Your task to perform on an android device: allow cookies in the chrome app Image 0: 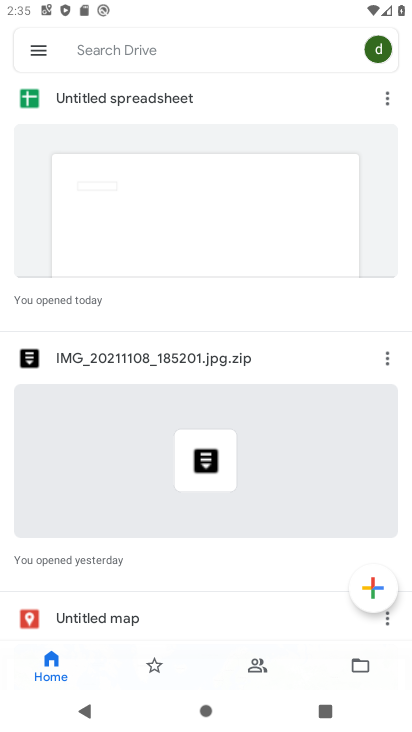
Step 0: press home button
Your task to perform on an android device: allow cookies in the chrome app Image 1: 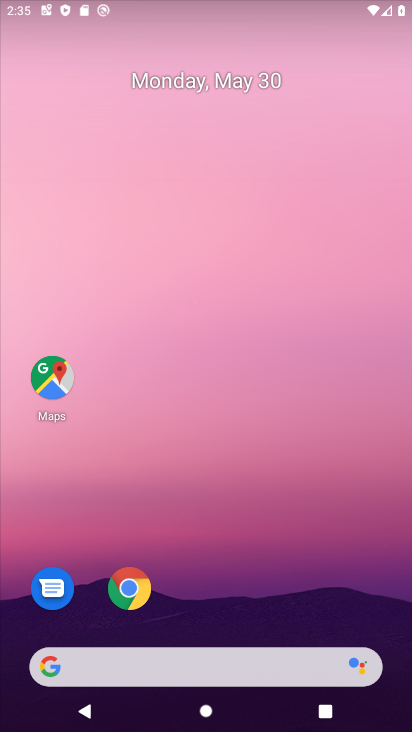
Step 1: drag from (208, 557) to (220, 275)
Your task to perform on an android device: allow cookies in the chrome app Image 2: 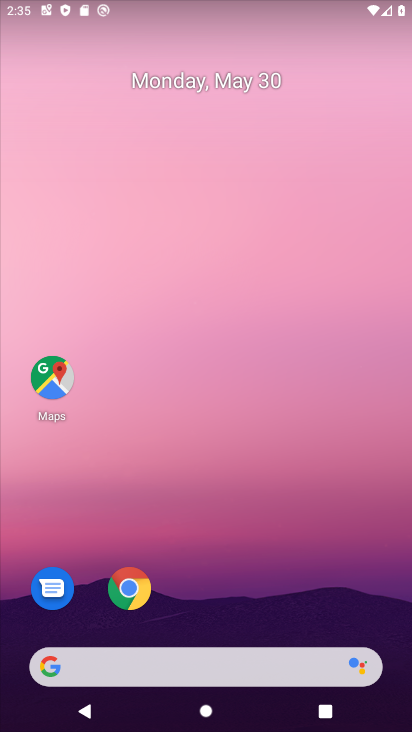
Step 2: click (128, 579)
Your task to perform on an android device: allow cookies in the chrome app Image 3: 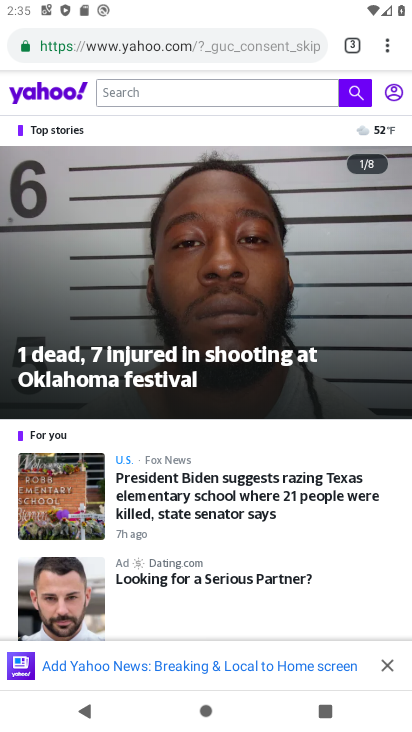
Step 3: click (387, 46)
Your task to perform on an android device: allow cookies in the chrome app Image 4: 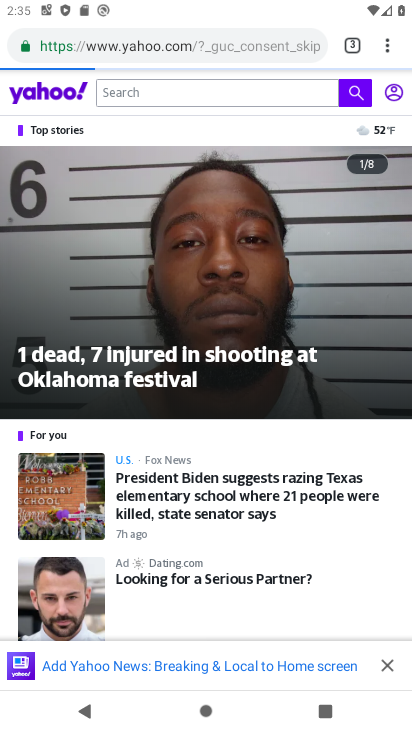
Step 4: click (387, 46)
Your task to perform on an android device: allow cookies in the chrome app Image 5: 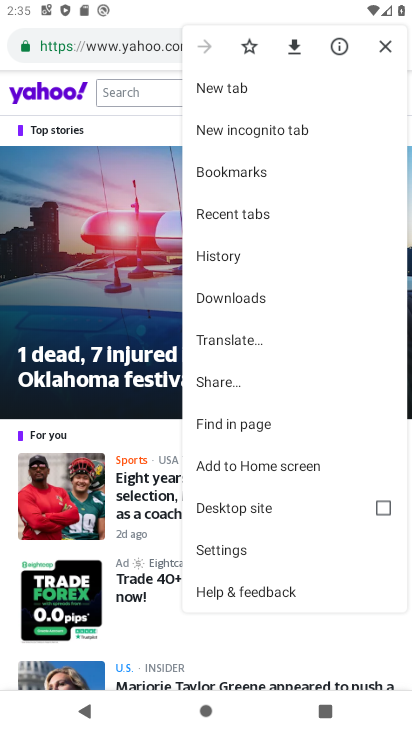
Step 5: drag from (259, 383) to (244, 143)
Your task to perform on an android device: allow cookies in the chrome app Image 6: 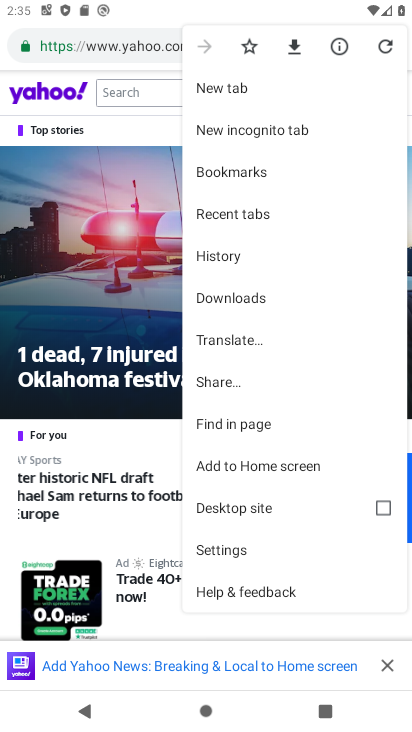
Step 6: click (238, 539)
Your task to perform on an android device: allow cookies in the chrome app Image 7: 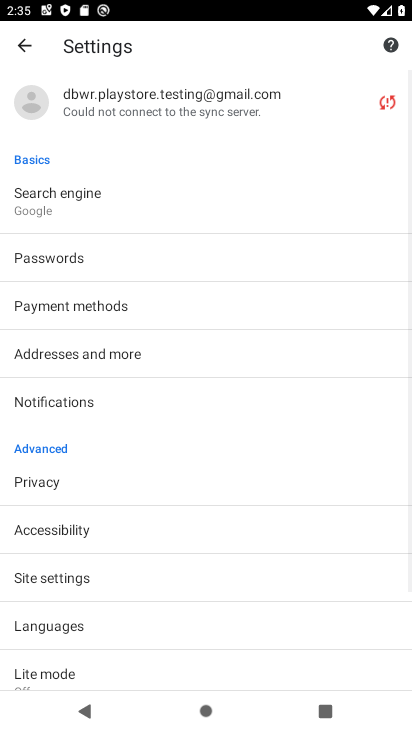
Step 7: drag from (127, 533) to (141, 316)
Your task to perform on an android device: allow cookies in the chrome app Image 8: 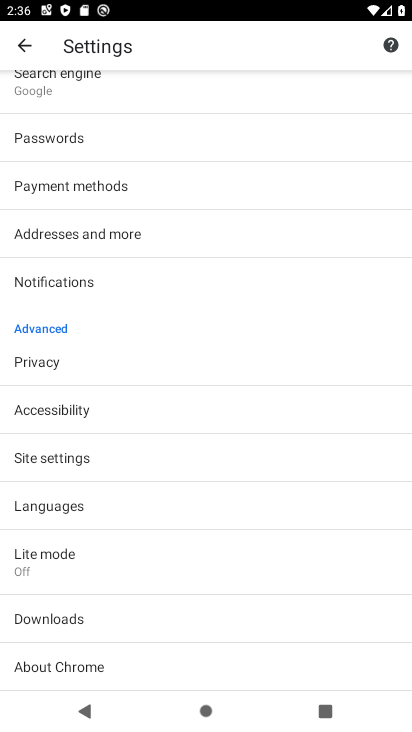
Step 8: click (68, 460)
Your task to perform on an android device: allow cookies in the chrome app Image 9: 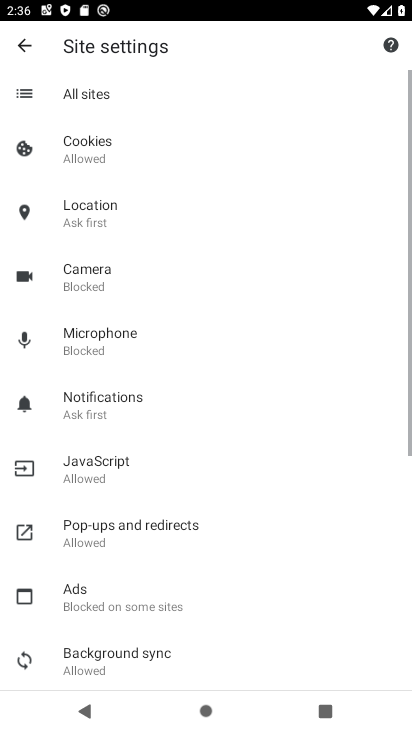
Step 9: click (83, 152)
Your task to perform on an android device: allow cookies in the chrome app Image 10: 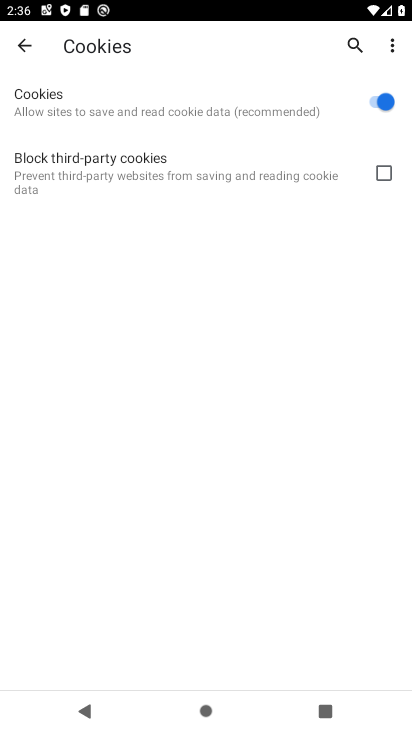
Step 10: task complete